Your task to perform on an android device: turn on improve location accuracy Image 0: 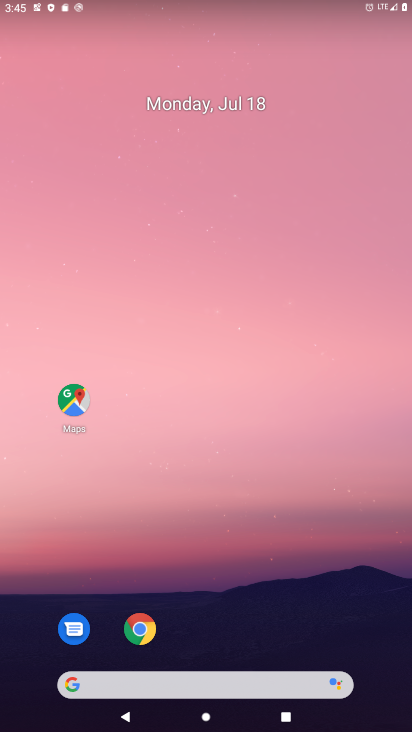
Step 0: drag from (210, 605) to (231, 122)
Your task to perform on an android device: turn on improve location accuracy Image 1: 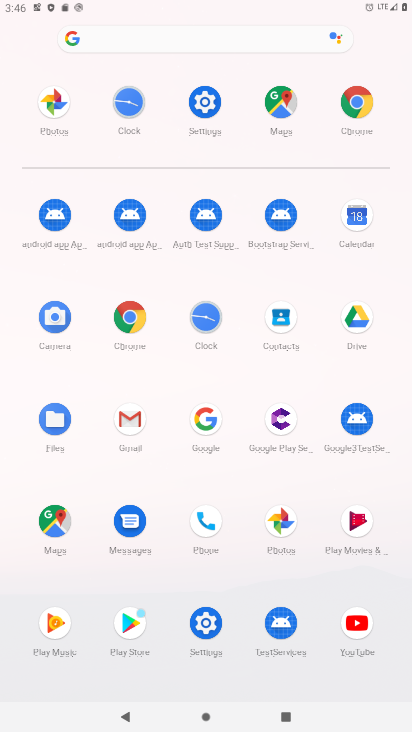
Step 1: click (199, 632)
Your task to perform on an android device: turn on improve location accuracy Image 2: 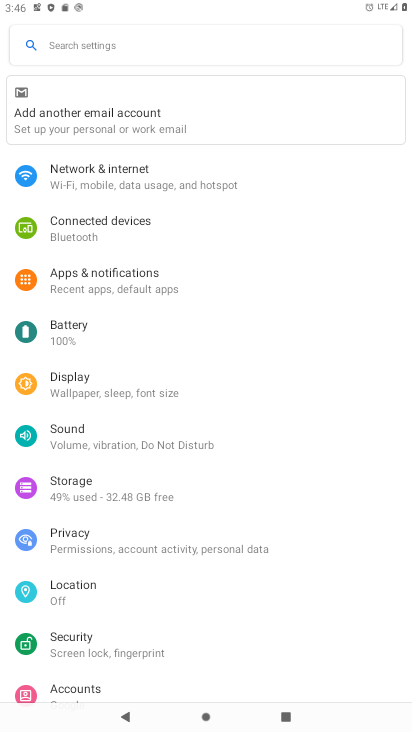
Step 2: click (88, 595)
Your task to perform on an android device: turn on improve location accuracy Image 3: 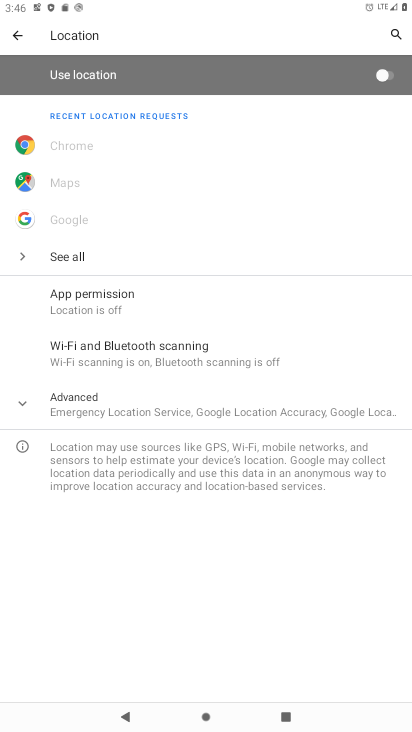
Step 3: click (106, 406)
Your task to perform on an android device: turn on improve location accuracy Image 4: 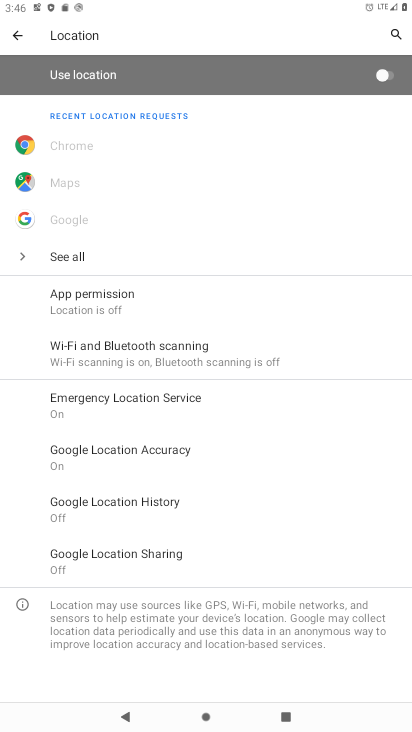
Step 4: click (163, 464)
Your task to perform on an android device: turn on improve location accuracy Image 5: 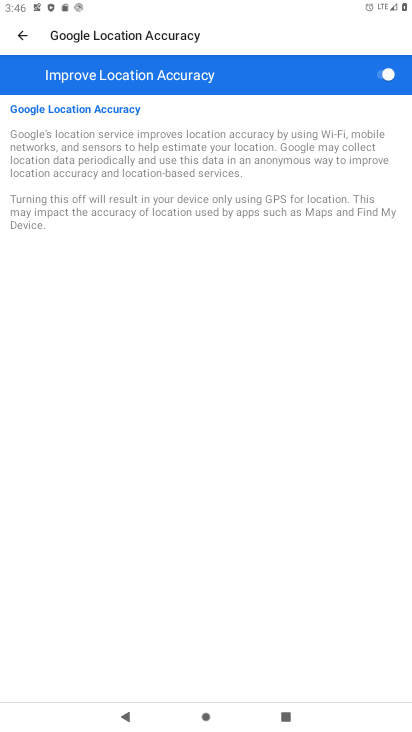
Step 5: task complete